Your task to perform on an android device: Open Google Chrome Image 0: 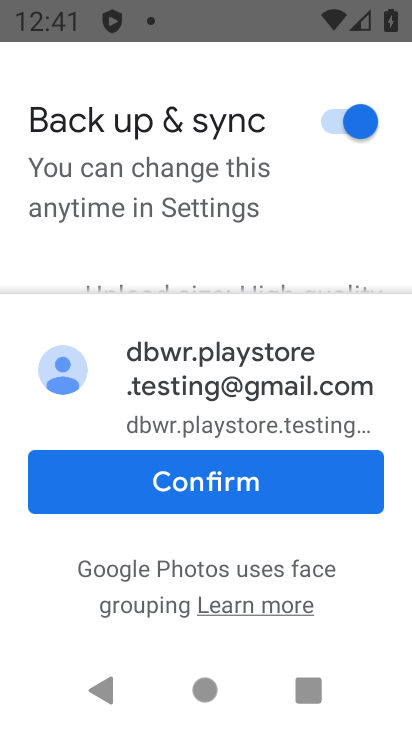
Step 0: press home button
Your task to perform on an android device: Open Google Chrome Image 1: 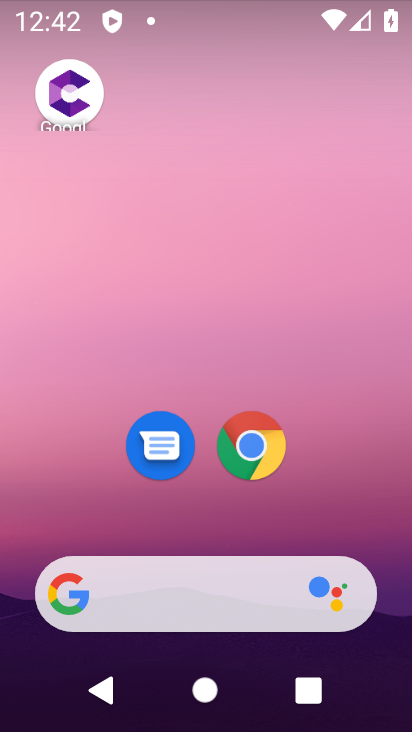
Step 1: click (250, 450)
Your task to perform on an android device: Open Google Chrome Image 2: 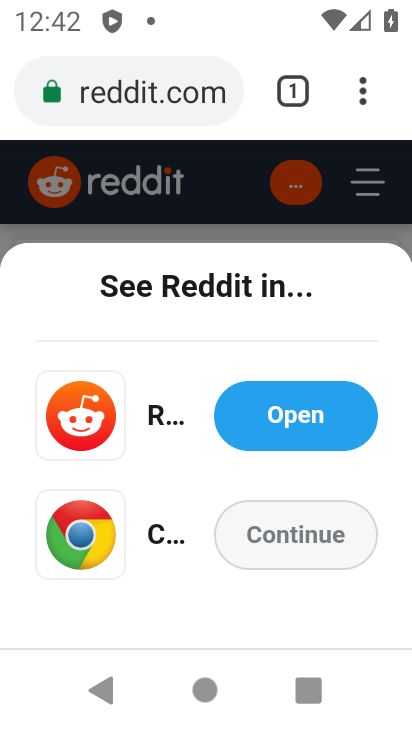
Step 2: task complete